Your task to perform on an android device: create a new album in the google photos Image 0: 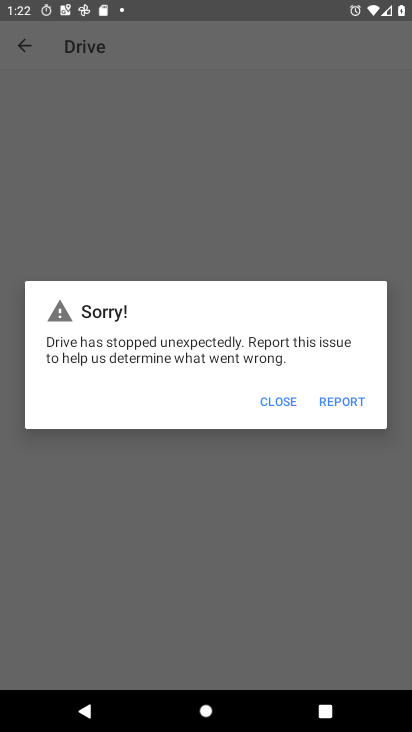
Step 0: press home button
Your task to perform on an android device: create a new album in the google photos Image 1: 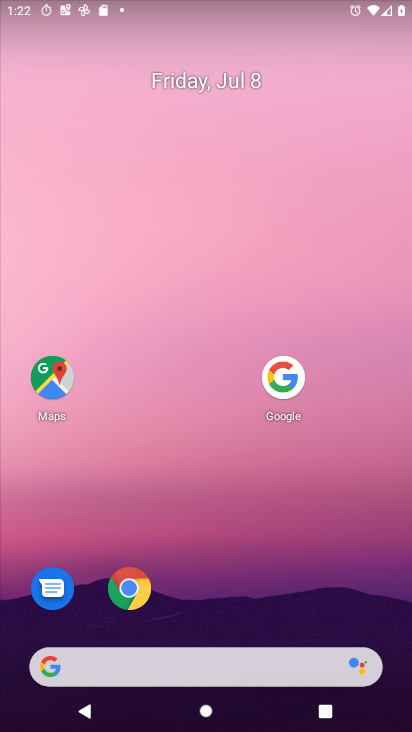
Step 1: drag from (196, 674) to (357, 119)
Your task to perform on an android device: create a new album in the google photos Image 2: 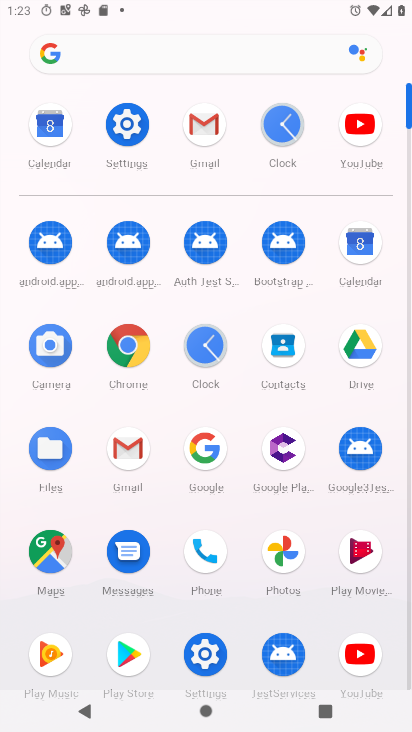
Step 2: click (281, 548)
Your task to perform on an android device: create a new album in the google photos Image 3: 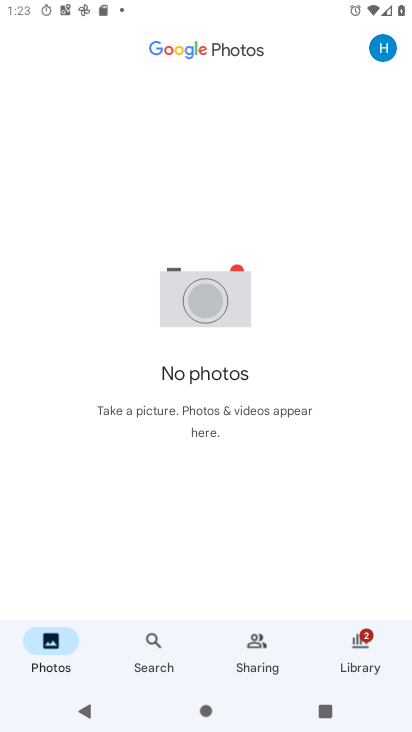
Step 3: click (359, 654)
Your task to perform on an android device: create a new album in the google photos Image 4: 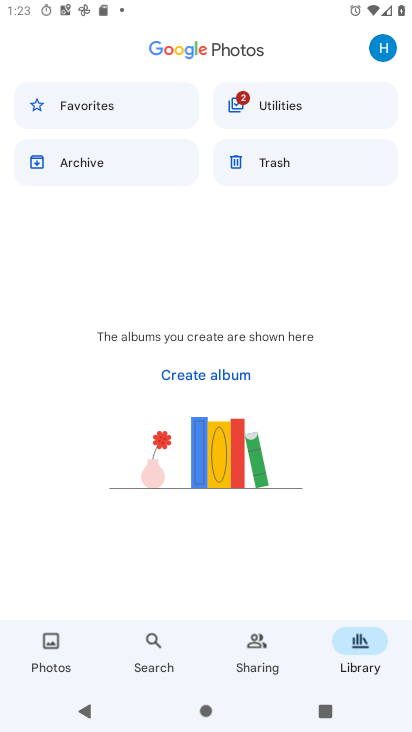
Step 4: click (206, 371)
Your task to perform on an android device: create a new album in the google photos Image 5: 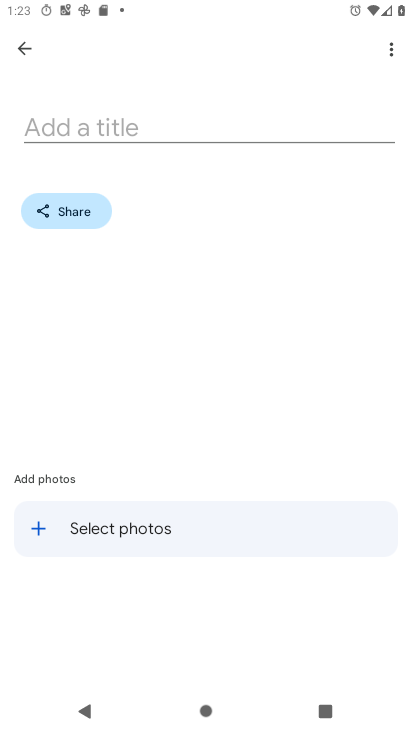
Step 5: click (133, 528)
Your task to perform on an android device: create a new album in the google photos Image 6: 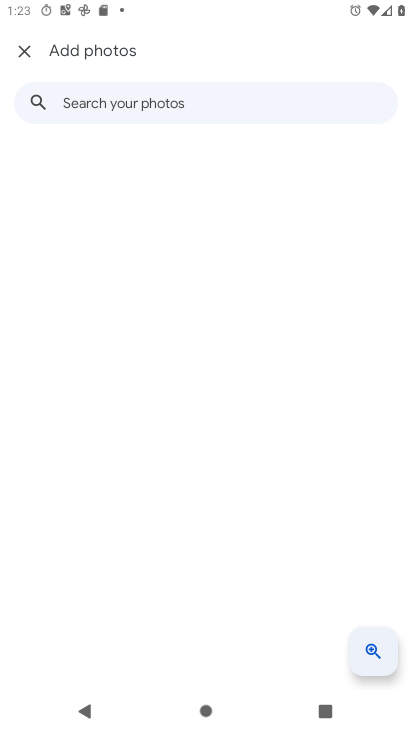
Step 6: task complete